Your task to perform on an android device: open a bookmark in the chrome app Image 0: 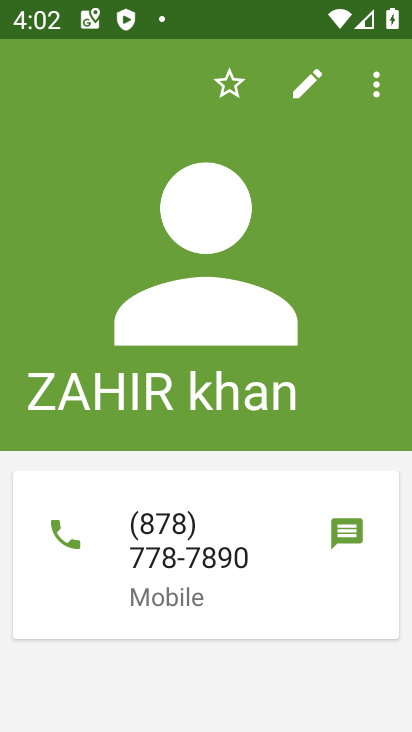
Step 0: press home button
Your task to perform on an android device: open a bookmark in the chrome app Image 1: 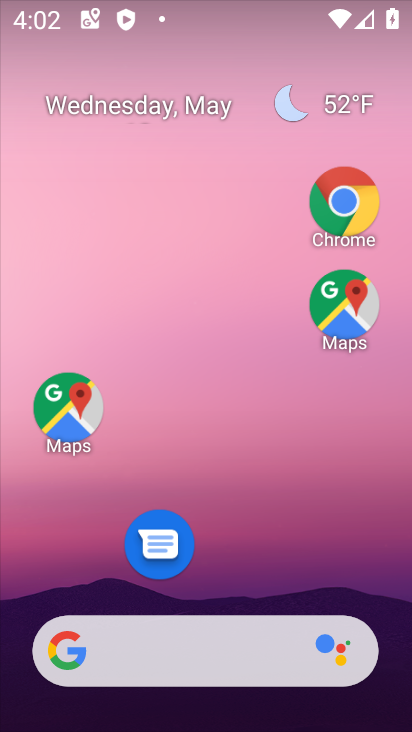
Step 1: click (342, 193)
Your task to perform on an android device: open a bookmark in the chrome app Image 2: 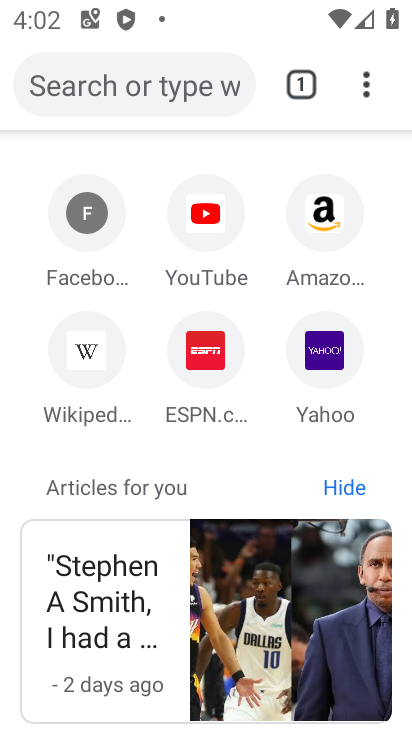
Step 2: click (367, 87)
Your task to perform on an android device: open a bookmark in the chrome app Image 3: 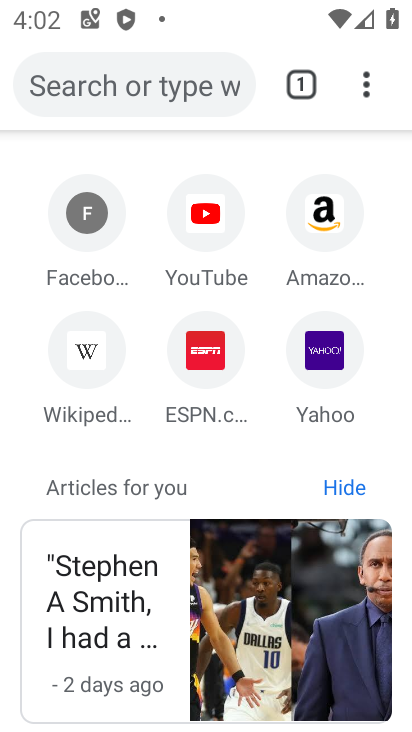
Step 3: click (364, 87)
Your task to perform on an android device: open a bookmark in the chrome app Image 4: 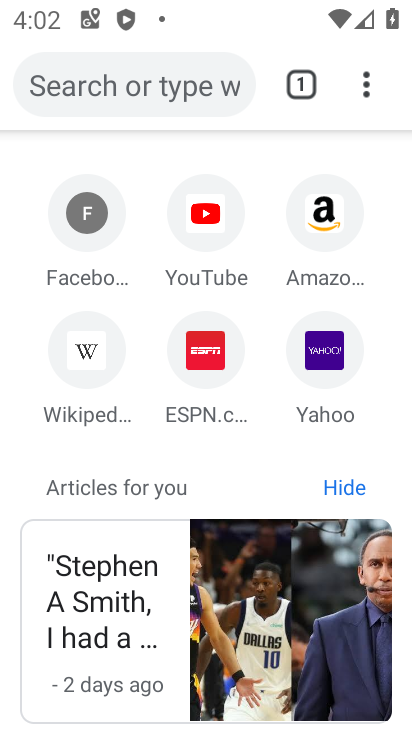
Step 4: click (366, 87)
Your task to perform on an android device: open a bookmark in the chrome app Image 5: 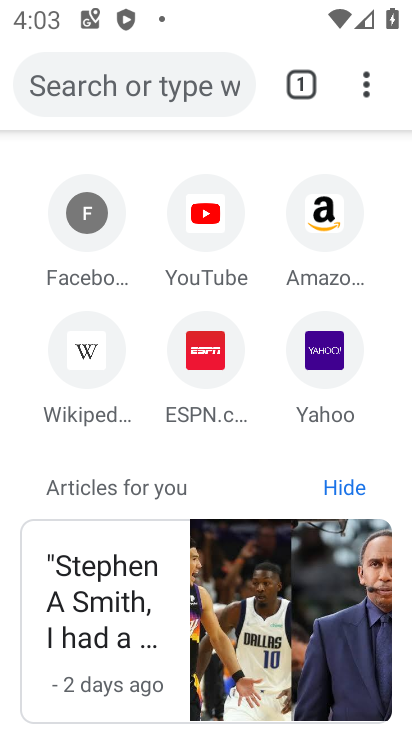
Step 5: click (370, 87)
Your task to perform on an android device: open a bookmark in the chrome app Image 6: 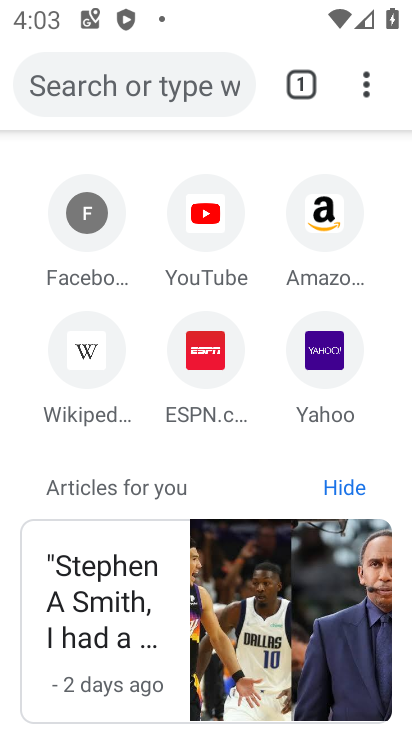
Step 6: click (365, 90)
Your task to perform on an android device: open a bookmark in the chrome app Image 7: 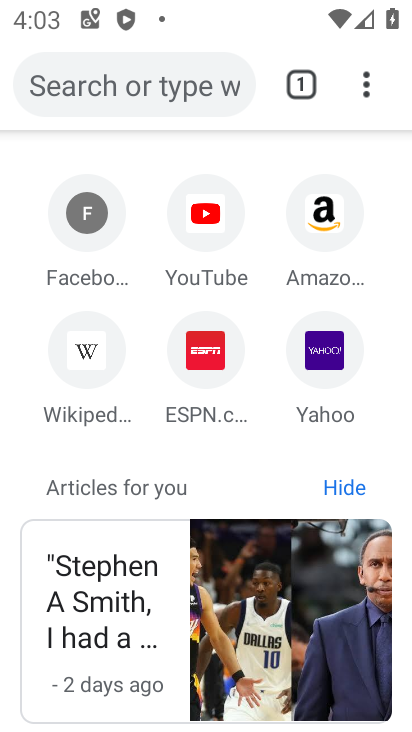
Step 7: click (183, 313)
Your task to perform on an android device: open a bookmark in the chrome app Image 8: 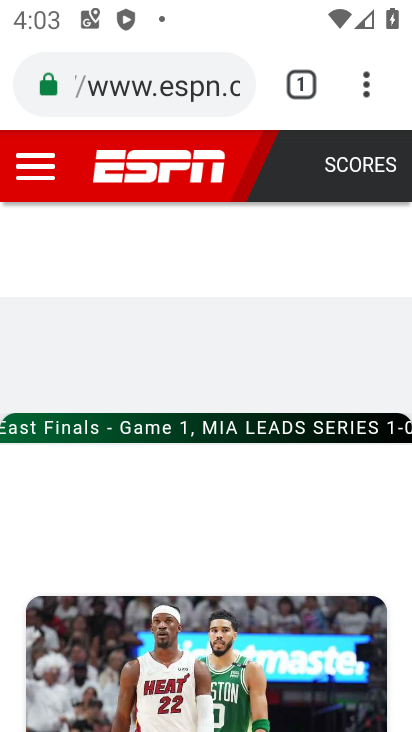
Step 8: click (371, 87)
Your task to perform on an android device: open a bookmark in the chrome app Image 9: 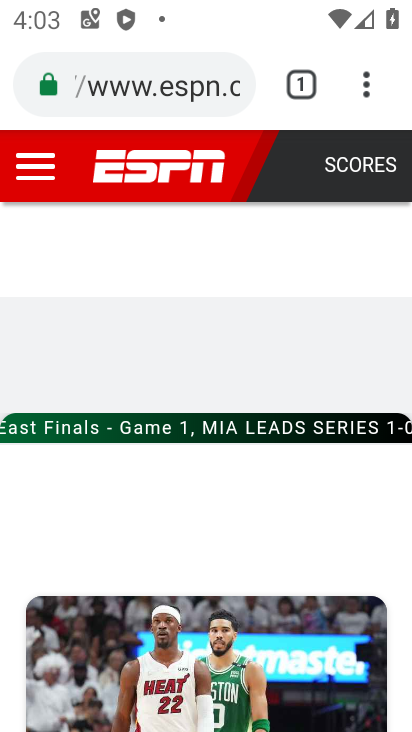
Step 9: click (374, 86)
Your task to perform on an android device: open a bookmark in the chrome app Image 10: 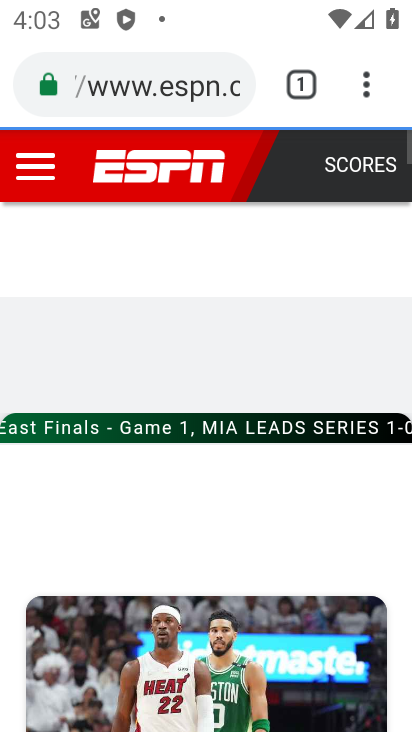
Step 10: click (368, 86)
Your task to perform on an android device: open a bookmark in the chrome app Image 11: 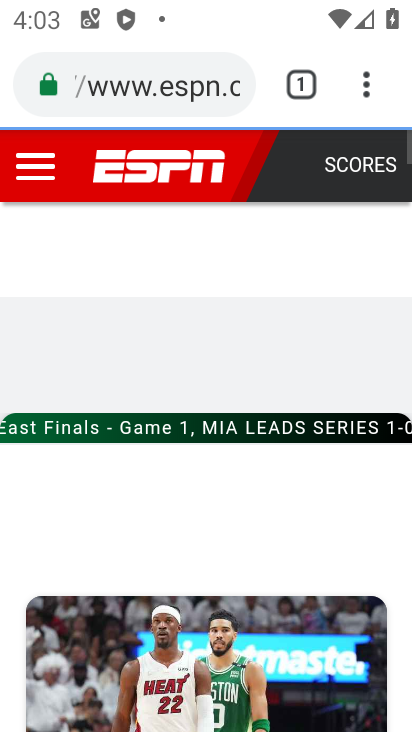
Step 11: click (368, 87)
Your task to perform on an android device: open a bookmark in the chrome app Image 12: 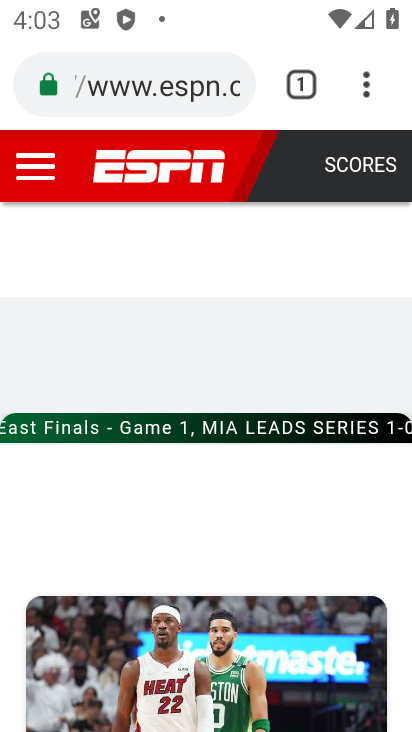
Step 12: click (365, 84)
Your task to perform on an android device: open a bookmark in the chrome app Image 13: 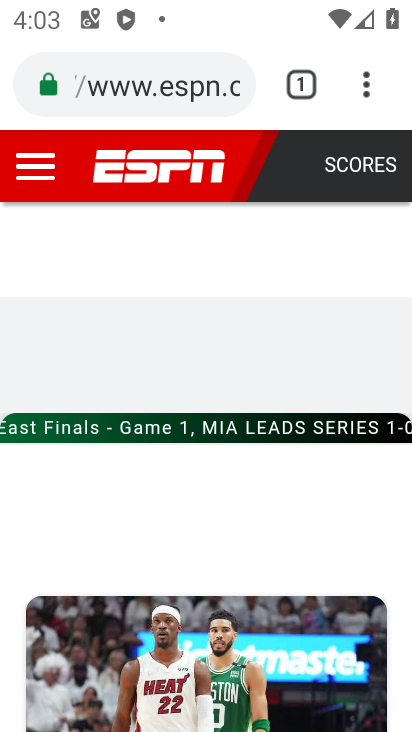
Step 13: click (364, 86)
Your task to perform on an android device: open a bookmark in the chrome app Image 14: 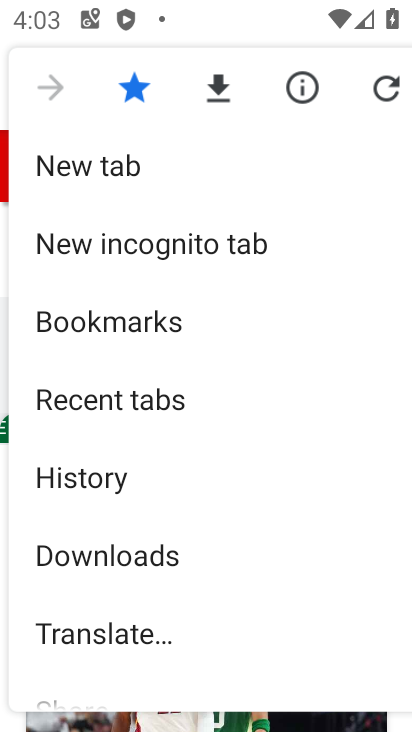
Step 14: click (193, 317)
Your task to perform on an android device: open a bookmark in the chrome app Image 15: 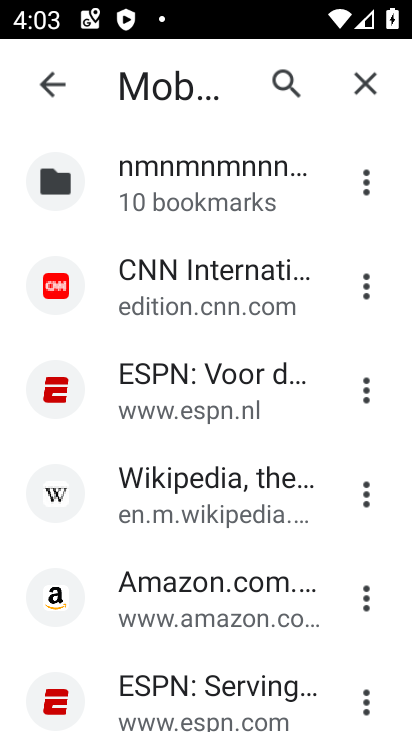
Step 15: click (225, 273)
Your task to perform on an android device: open a bookmark in the chrome app Image 16: 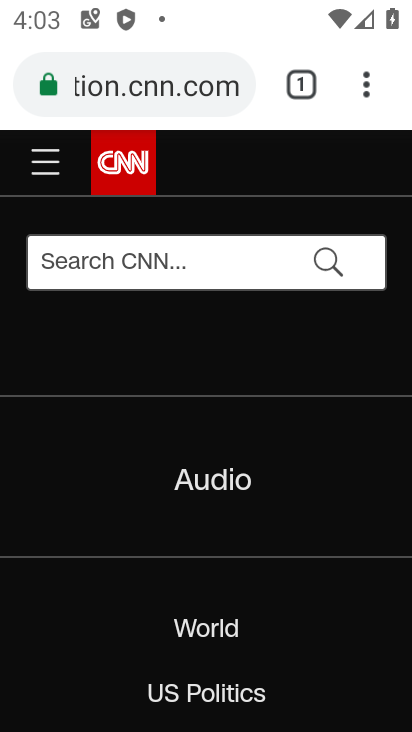
Step 16: task complete